Your task to perform on an android device: Open ESPN.com Image 0: 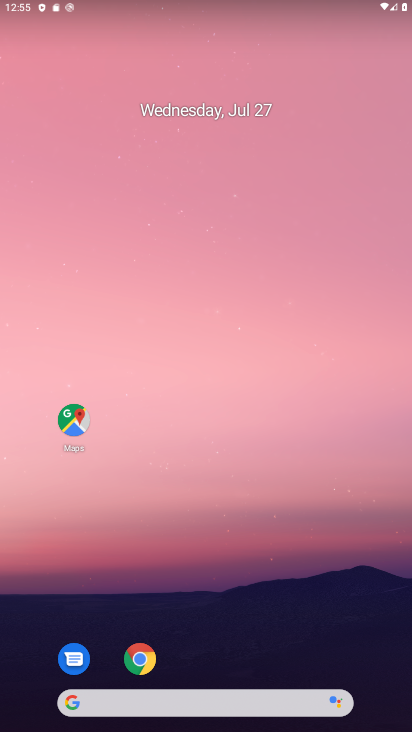
Step 0: drag from (289, 577) to (239, 0)
Your task to perform on an android device: Open ESPN.com Image 1: 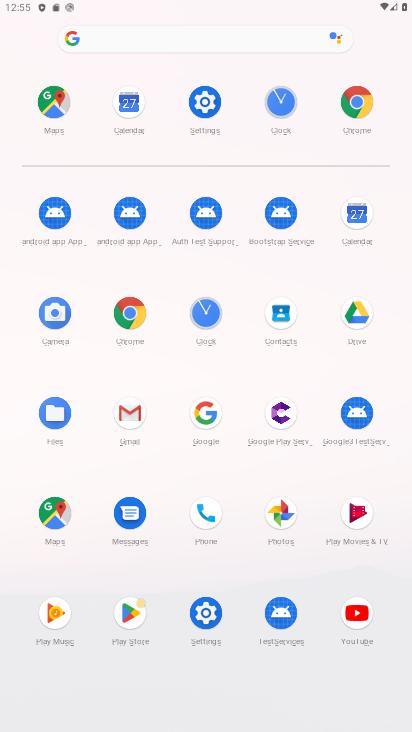
Step 1: click (364, 99)
Your task to perform on an android device: Open ESPN.com Image 2: 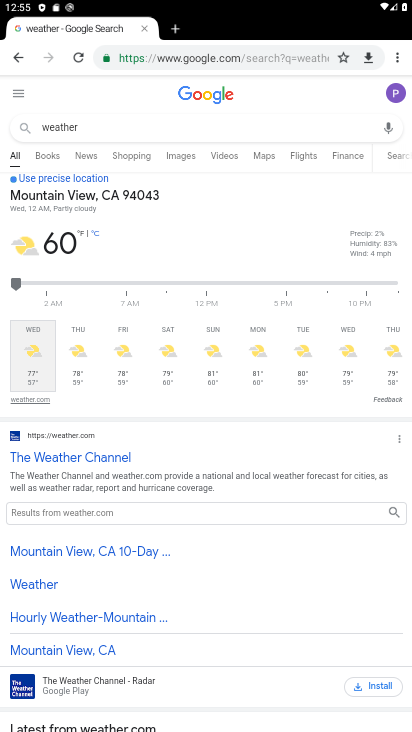
Step 2: click (234, 57)
Your task to perform on an android device: Open ESPN.com Image 3: 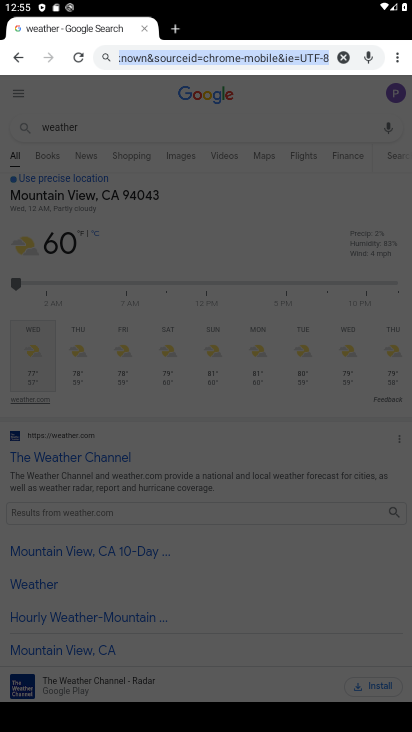
Step 3: type "espn.com"
Your task to perform on an android device: Open ESPN.com Image 4: 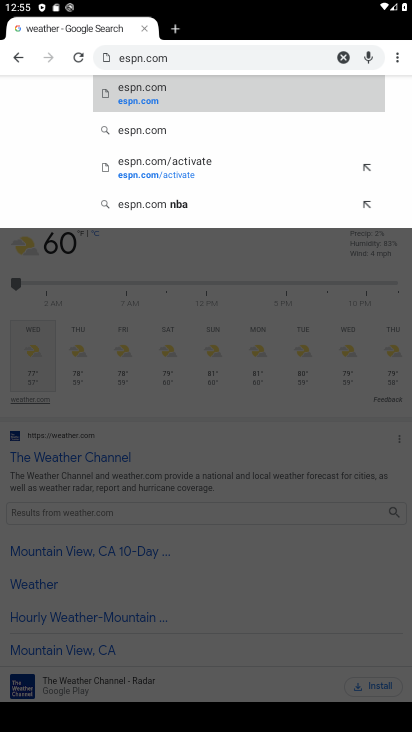
Step 4: click (125, 99)
Your task to perform on an android device: Open ESPN.com Image 5: 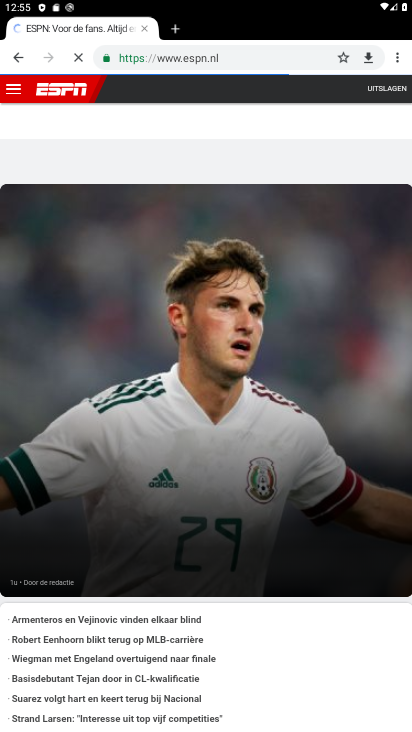
Step 5: task complete